Your task to perform on an android device: turn on data saver in the chrome app Image 0: 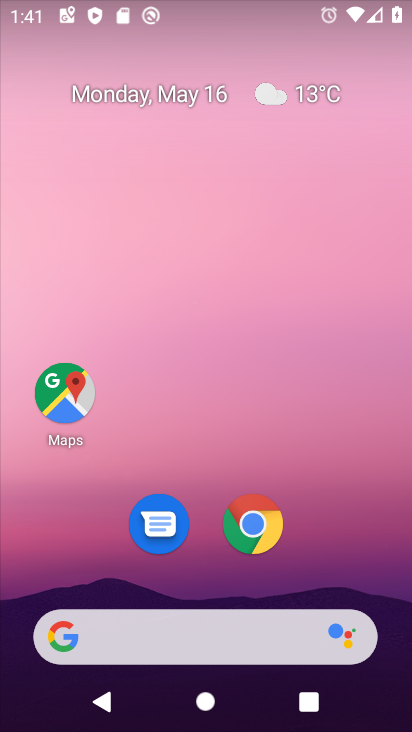
Step 0: click (259, 533)
Your task to perform on an android device: turn on data saver in the chrome app Image 1: 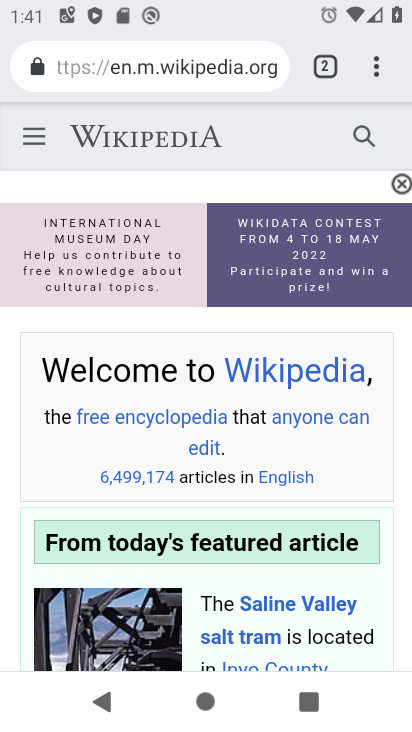
Step 1: click (369, 64)
Your task to perform on an android device: turn on data saver in the chrome app Image 2: 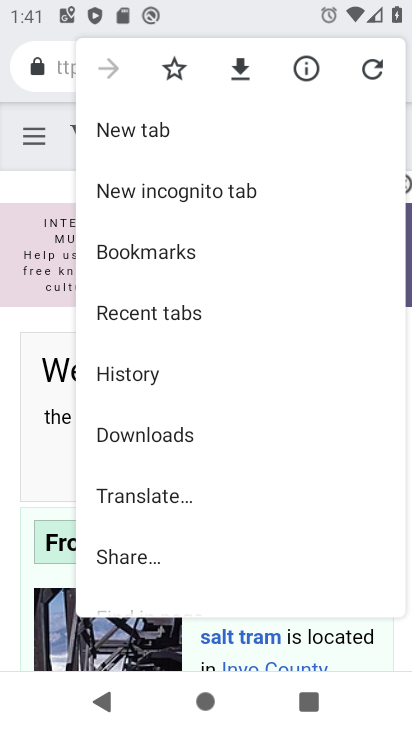
Step 2: drag from (257, 447) to (290, 92)
Your task to perform on an android device: turn on data saver in the chrome app Image 3: 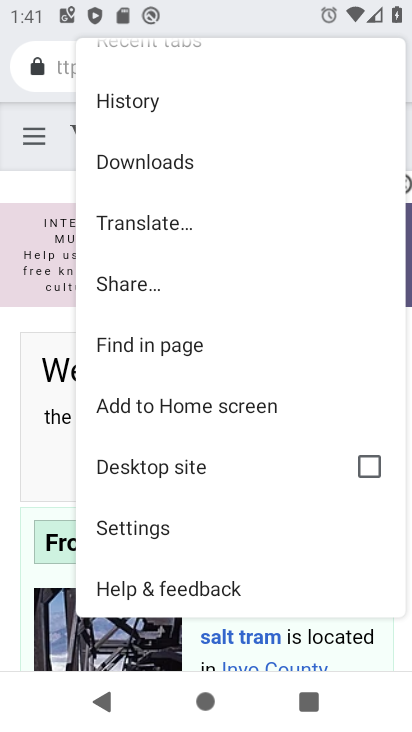
Step 3: click (164, 516)
Your task to perform on an android device: turn on data saver in the chrome app Image 4: 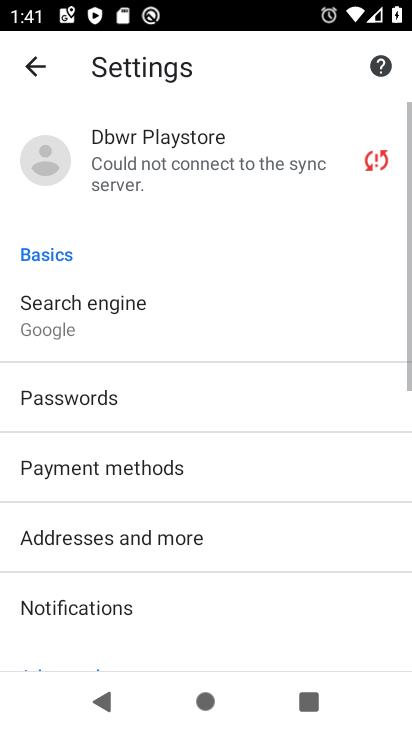
Step 4: drag from (182, 547) to (247, 155)
Your task to perform on an android device: turn on data saver in the chrome app Image 5: 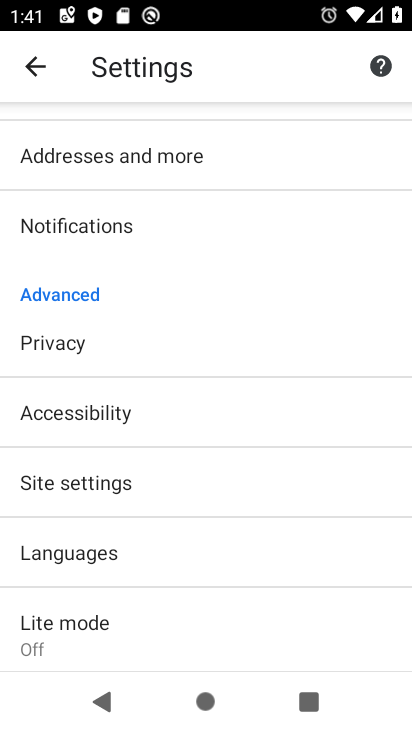
Step 5: click (121, 635)
Your task to perform on an android device: turn on data saver in the chrome app Image 6: 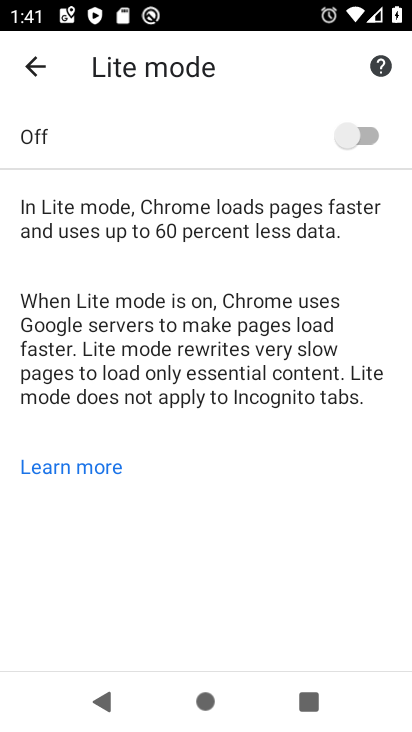
Step 6: click (354, 132)
Your task to perform on an android device: turn on data saver in the chrome app Image 7: 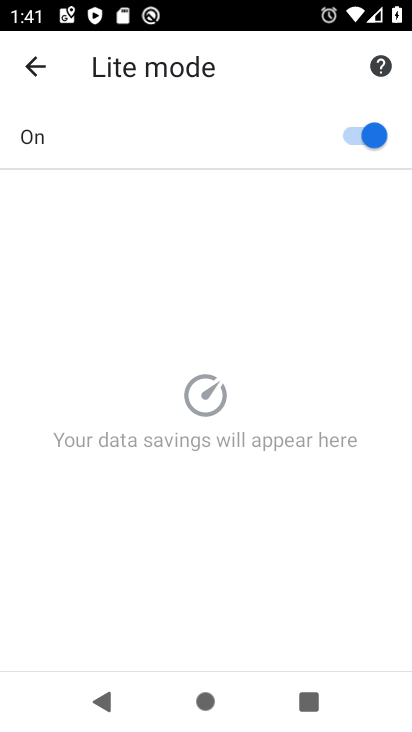
Step 7: task complete